Your task to perform on an android device: Open calendar and show me the second week of next month Image 0: 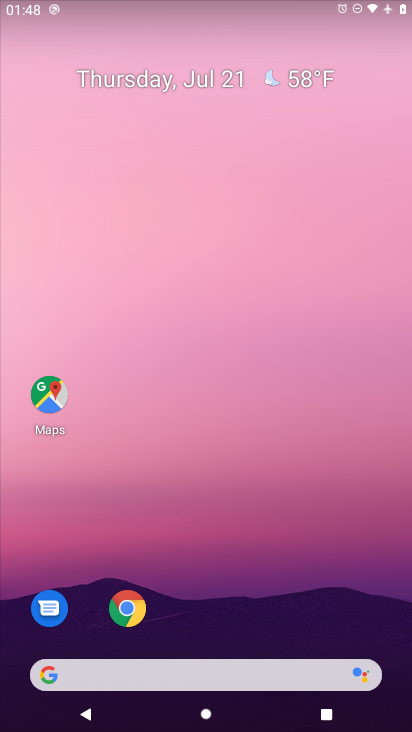
Step 0: press home button
Your task to perform on an android device: Open calendar and show me the second week of next month Image 1: 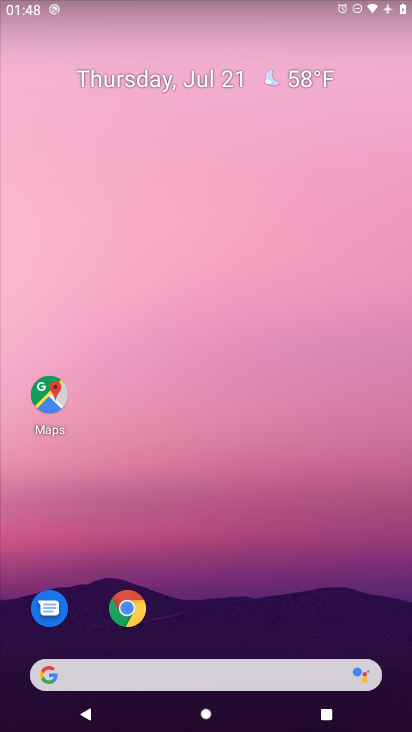
Step 1: drag from (231, 626) to (315, 3)
Your task to perform on an android device: Open calendar and show me the second week of next month Image 2: 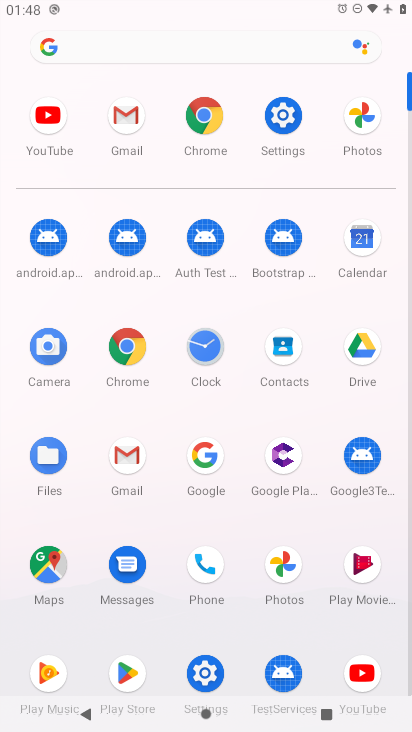
Step 2: click (371, 244)
Your task to perform on an android device: Open calendar and show me the second week of next month Image 3: 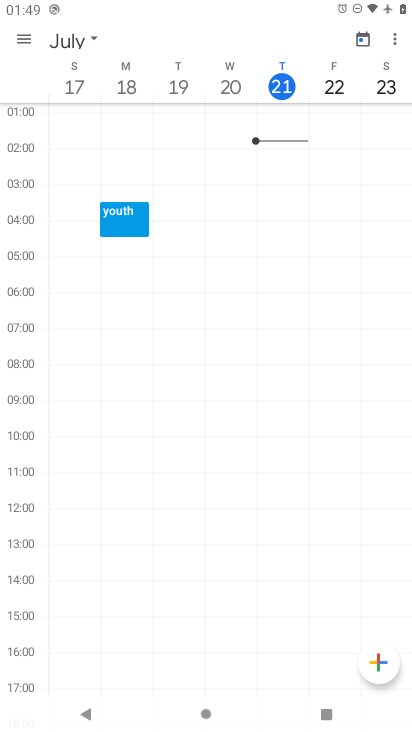
Step 3: click (86, 40)
Your task to perform on an android device: Open calendar and show me the second week of next month Image 4: 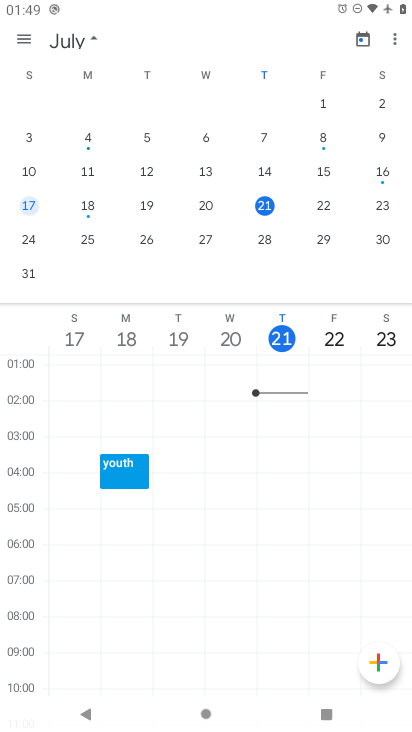
Step 4: drag from (373, 178) to (3, 168)
Your task to perform on an android device: Open calendar and show me the second week of next month Image 5: 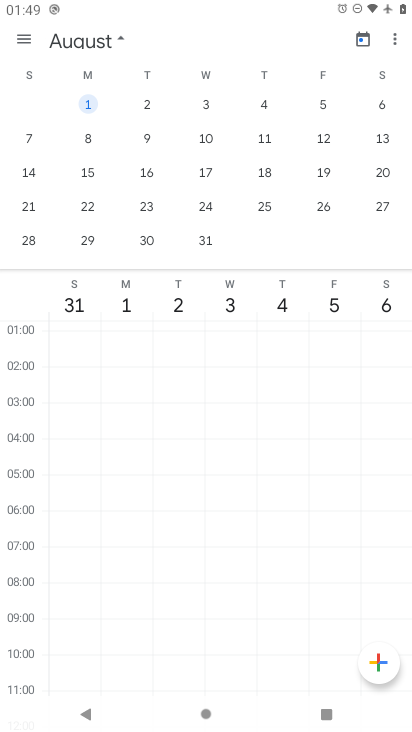
Step 5: click (90, 142)
Your task to perform on an android device: Open calendar and show me the second week of next month Image 6: 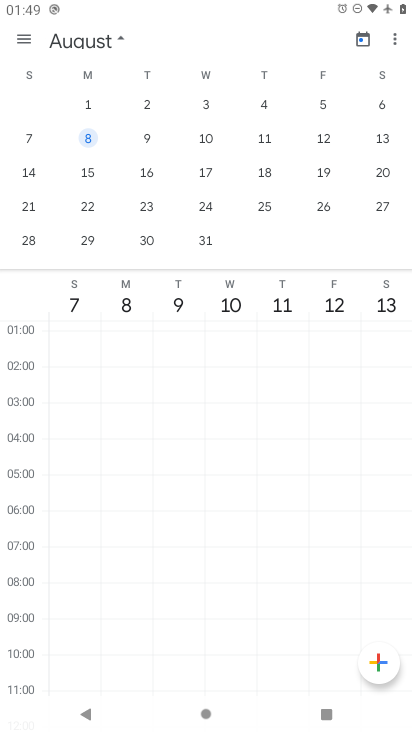
Step 6: click (147, 144)
Your task to perform on an android device: Open calendar and show me the second week of next month Image 7: 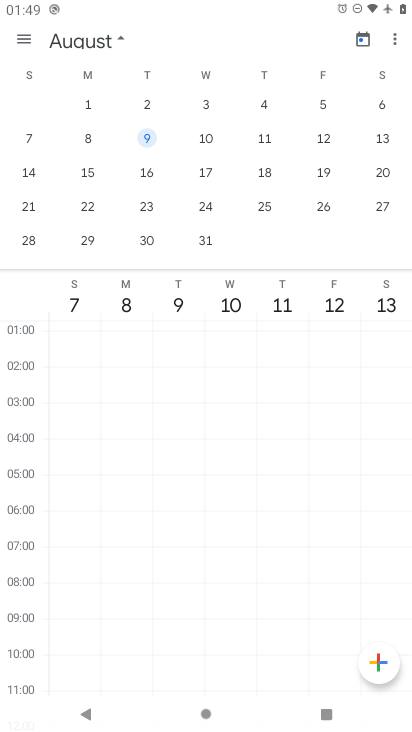
Step 7: click (202, 136)
Your task to perform on an android device: Open calendar and show me the second week of next month Image 8: 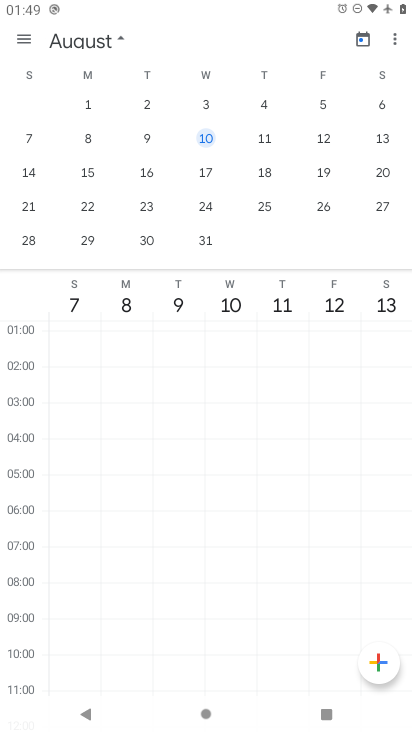
Step 8: click (270, 142)
Your task to perform on an android device: Open calendar and show me the second week of next month Image 9: 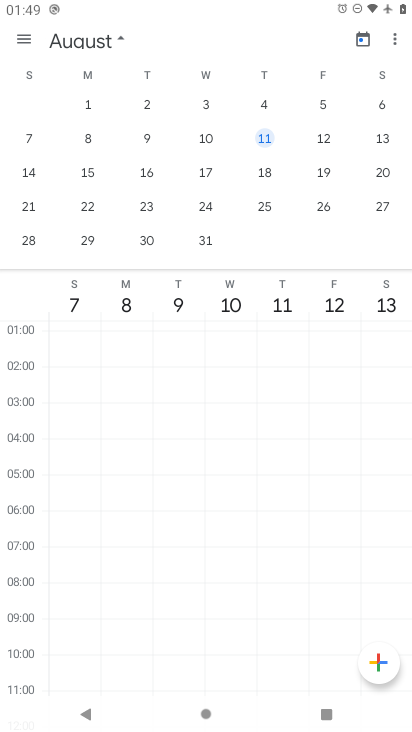
Step 9: click (329, 140)
Your task to perform on an android device: Open calendar and show me the second week of next month Image 10: 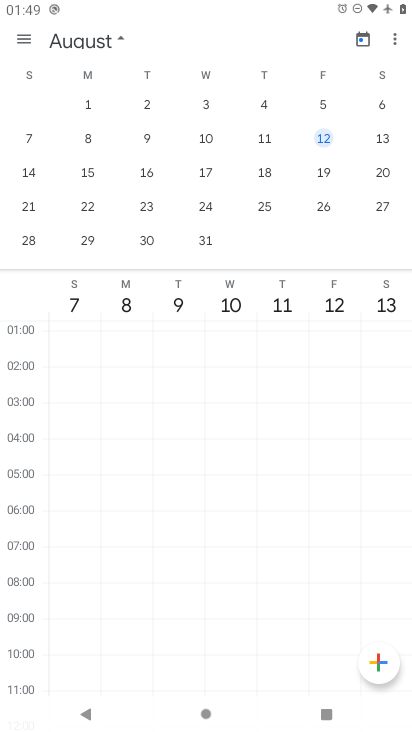
Step 10: click (385, 141)
Your task to perform on an android device: Open calendar and show me the second week of next month Image 11: 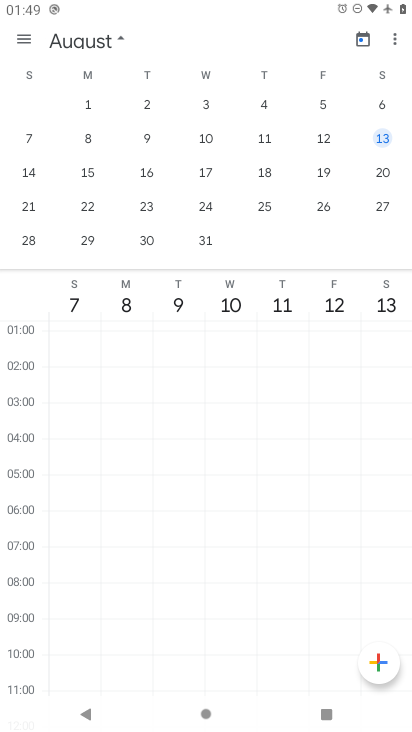
Step 11: click (33, 172)
Your task to perform on an android device: Open calendar and show me the second week of next month Image 12: 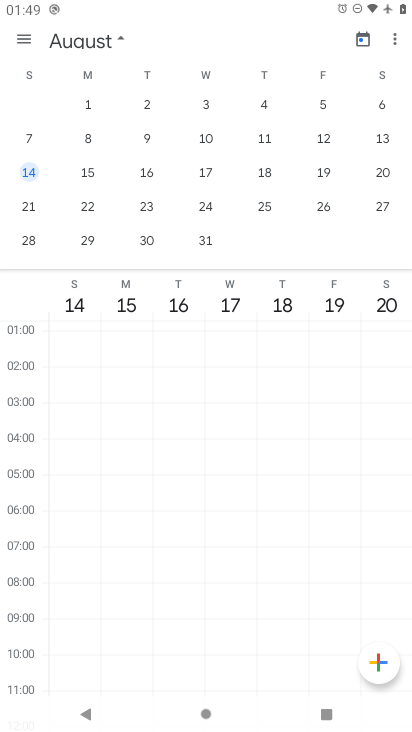
Step 12: task complete